Your task to perform on an android device: open chrome and create a bookmark for the current page Image 0: 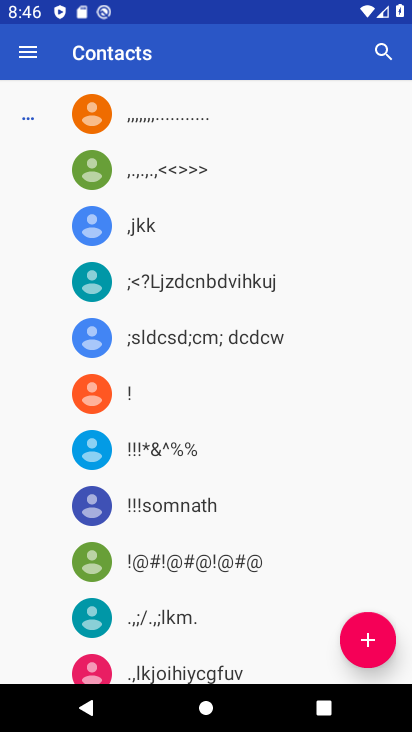
Step 0: press home button
Your task to perform on an android device: open chrome and create a bookmark for the current page Image 1: 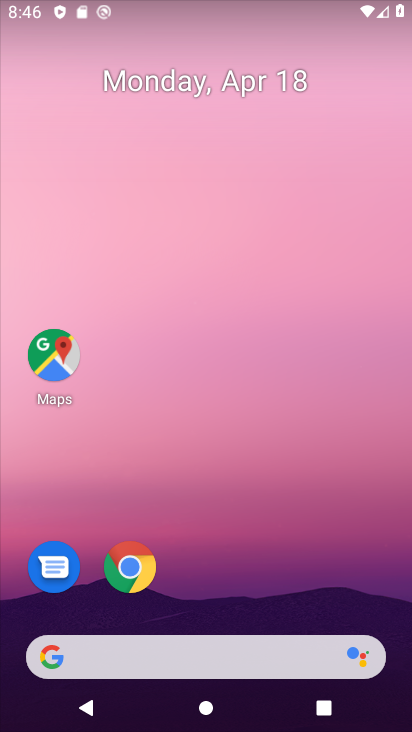
Step 1: click (124, 577)
Your task to perform on an android device: open chrome and create a bookmark for the current page Image 2: 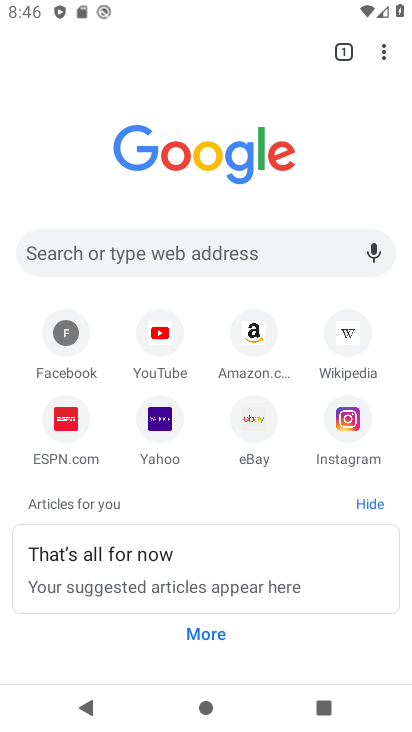
Step 2: click (383, 45)
Your task to perform on an android device: open chrome and create a bookmark for the current page Image 3: 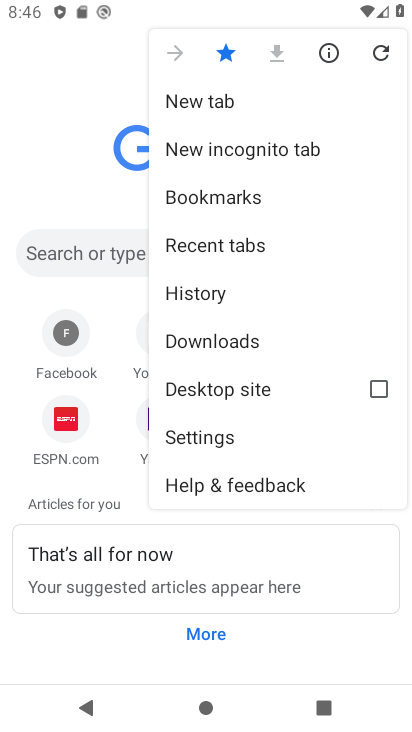
Step 3: click (229, 46)
Your task to perform on an android device: open chrome and create a bookmark for the current page Image 4: 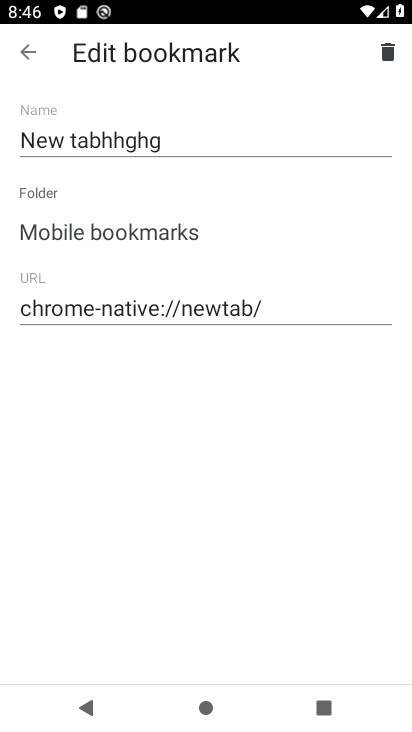
Step 4: task complete